Your task to perform on an android device: set the stopwatch Image 0: 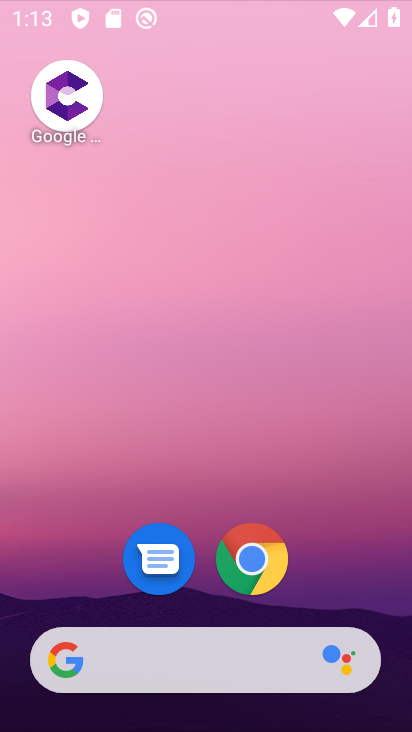
Step 0: click (218, 63)
Your task to perform on an android device: set the stopwatch Image 1: 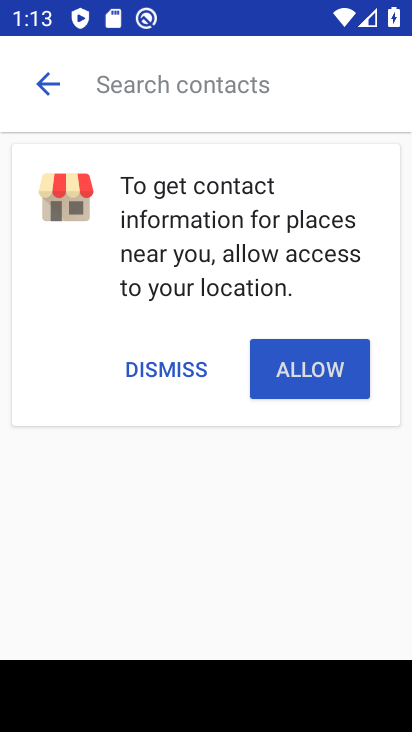
Step 1: press home button
Your task to perform on an android device: set the stopwatch Image 2: 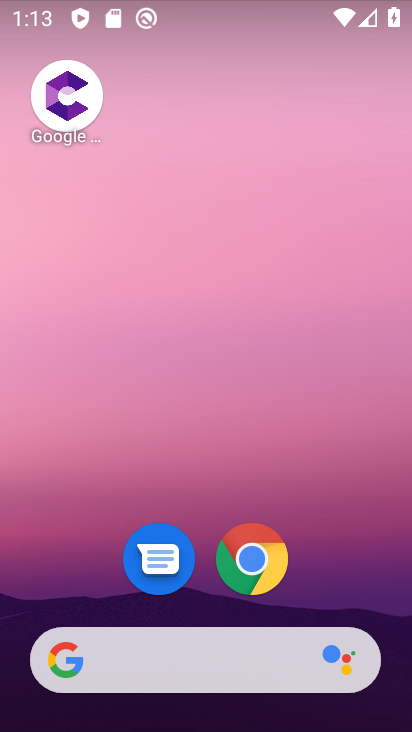
Step 2: drag from (86, 617) to (189, 117)
Your task to perform on an android device: set the stopwatch Image 3: 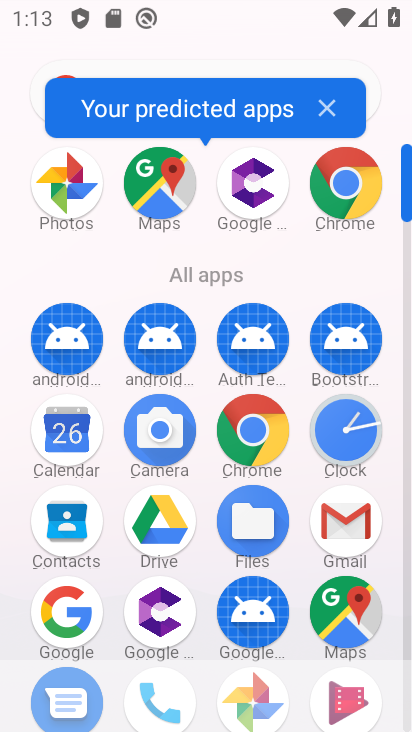
Step 3: click (350, 424)
Your task to perform on an android device: set the stopwatch Image 4: 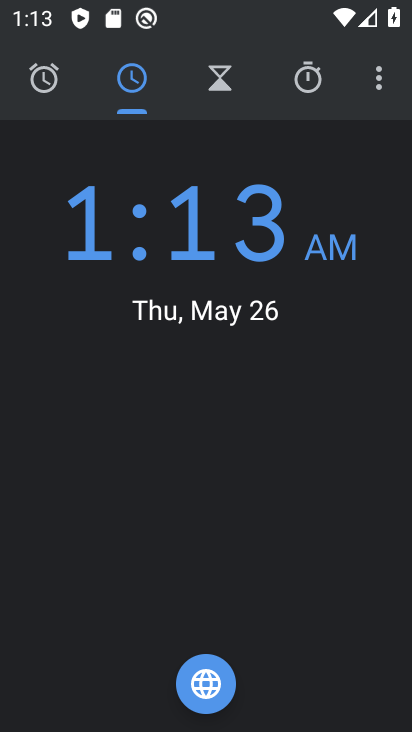
Step 4: click (312, 81)
Your task to perform on an android device: set the stopwatch Image 5: 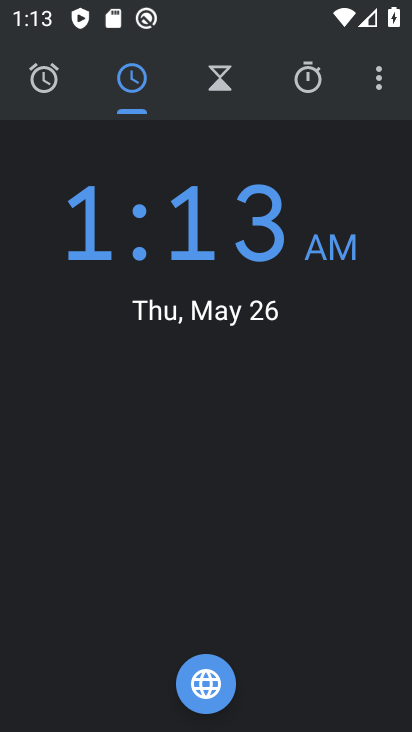
Step 5: click (316, 95)
Your task to perform on an android device: set the stopwatch Image 6: 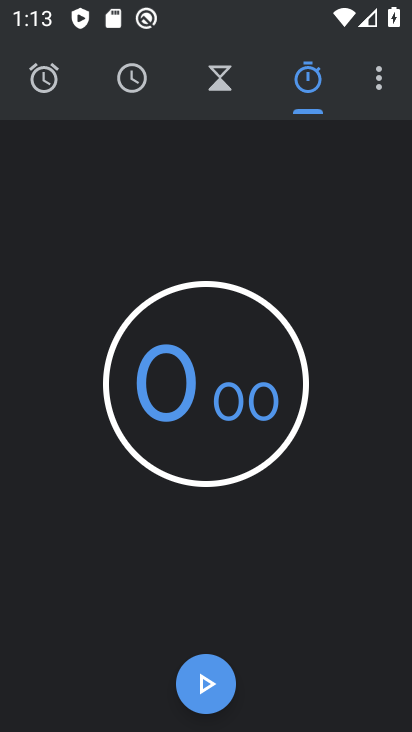
Step 6: click (213, 672)
Your task to perform on an android device: set the stopwatch Image 7: 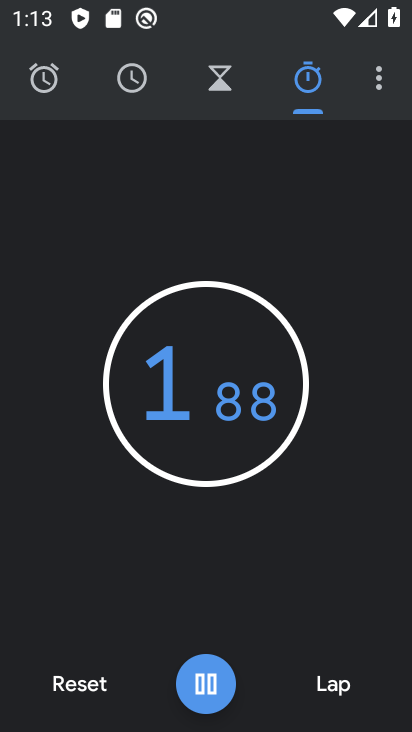
Step 7: task complete